Your task to perform on an android device: find photos in the google photos app Image 0: 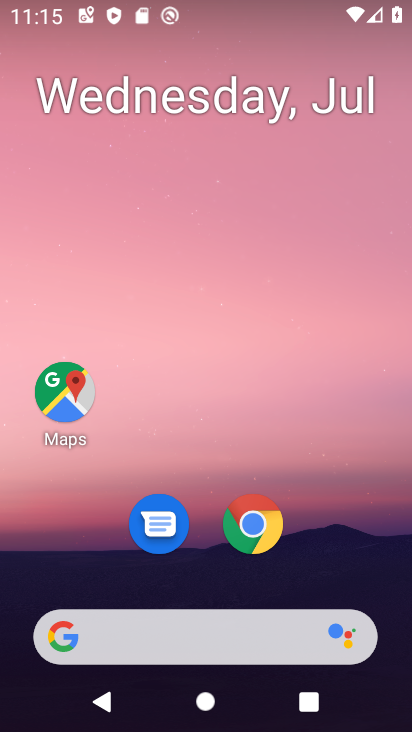
Step 0: drag from (237, 647) to (284, 82)
Your task to perform on an android device: find photos in the google photos app Image 1: 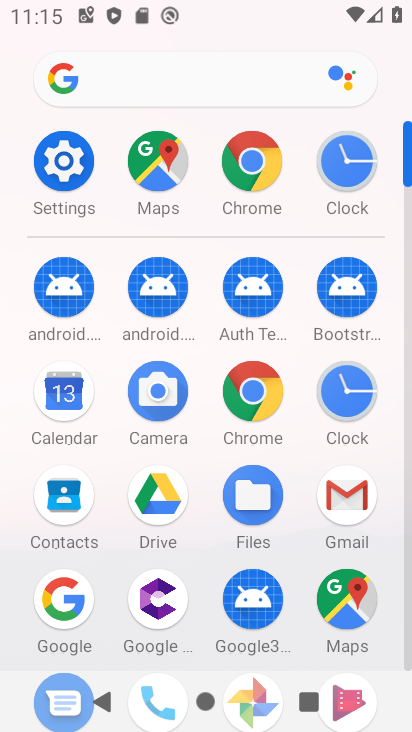
Step 1: drag from (205, 607) to (283, 213)
Your task to perform on an android device: find photos in the google photos app Image 2: 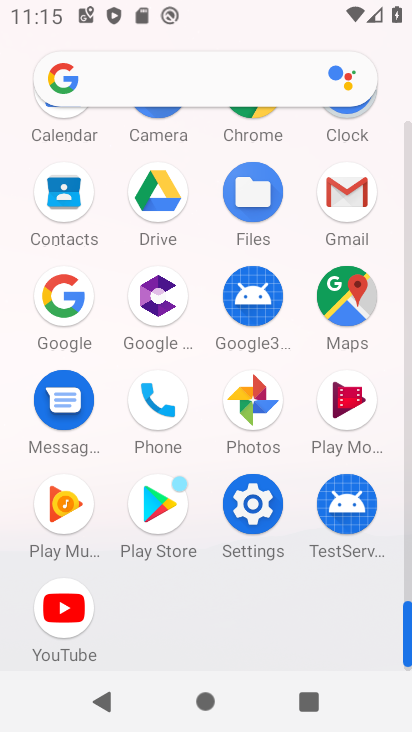
Step 2: click (248, 621)
Your task to perform on an android device: find photos in the google photos app Image 3: 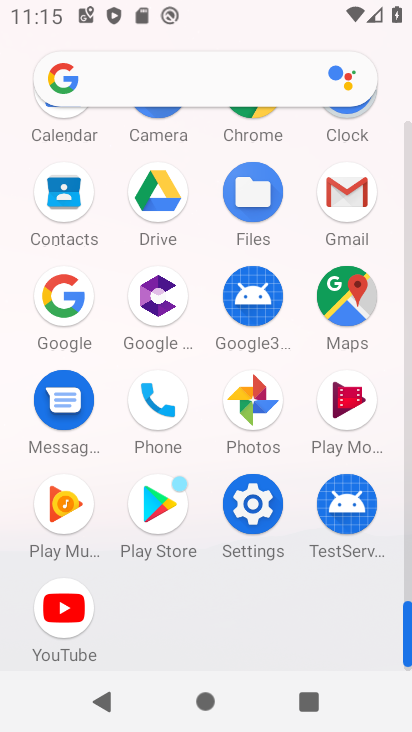
Step 3: click (254, 403)
Your task to perform on an android device: find photos in the google photos app Image 4: 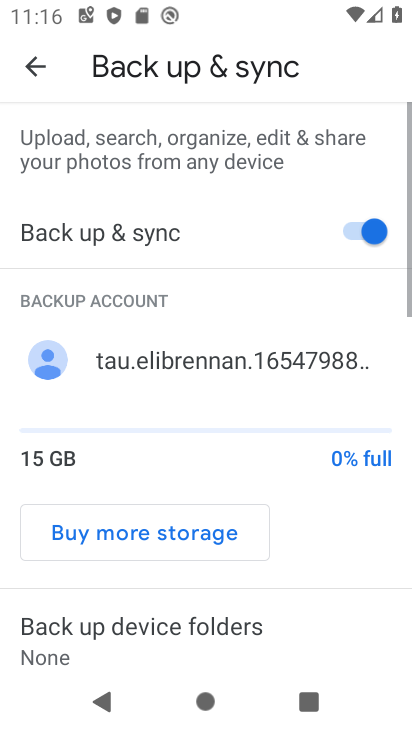
Step 4: click (33, 53)
Your task to perform on an android device: find photos in the google photos app Image 5: 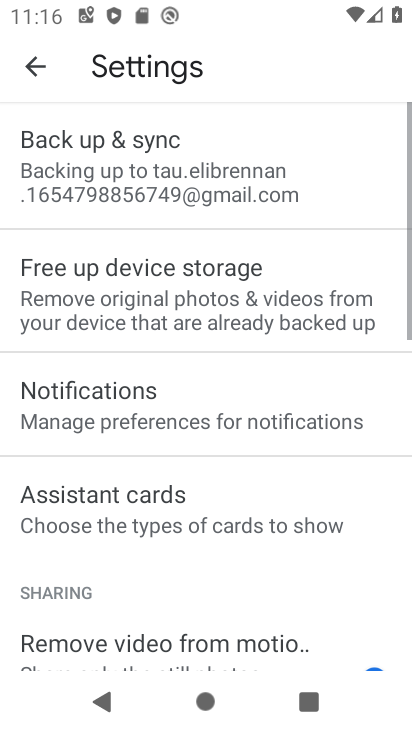
Step 5: click (35, 53)
Your task to perform on an android device: find photos in the google photos app Image 6: 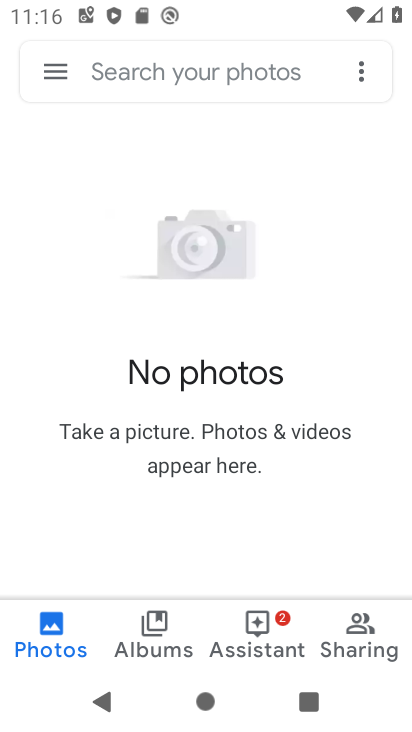
Step 6: task complete